Your task to perform on an android device: empty trash in google photos Image 0: 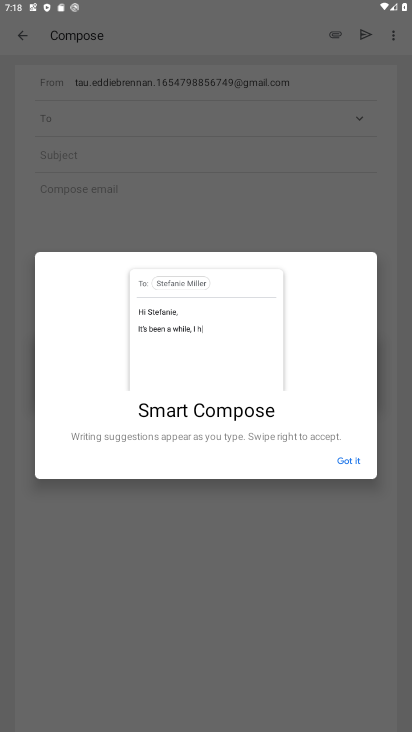
Step 0: press home button
Your task to perform on an android device: empty trash in google photos Image 1: 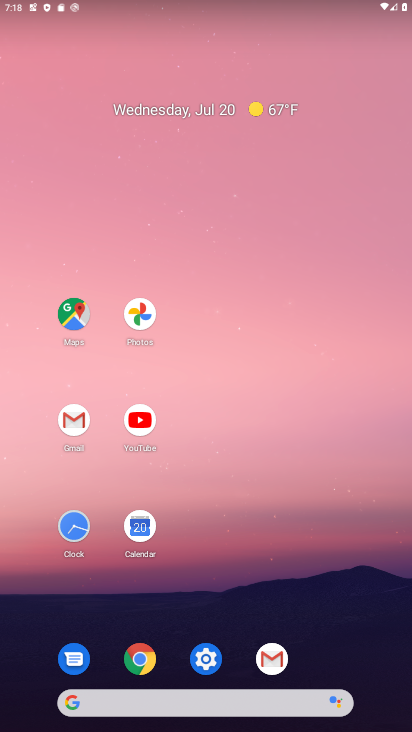
Step 1: click (137, 316)
Your task to perform on an android device: empty trash in google photos Image 2: 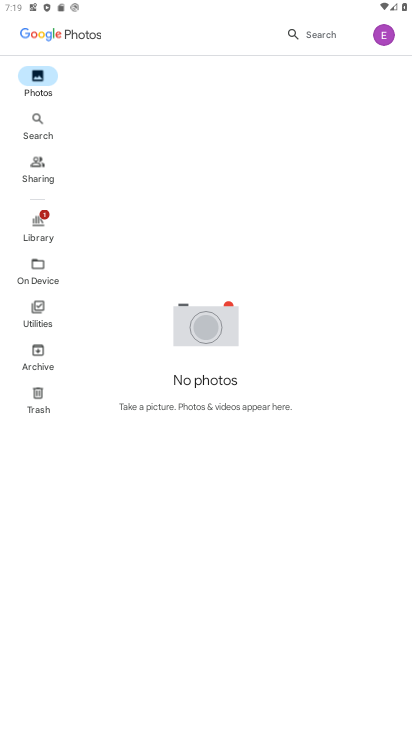
Step 2: click (36, 396)
Your task to perform on an android device: empty trash in google photos Image 3: 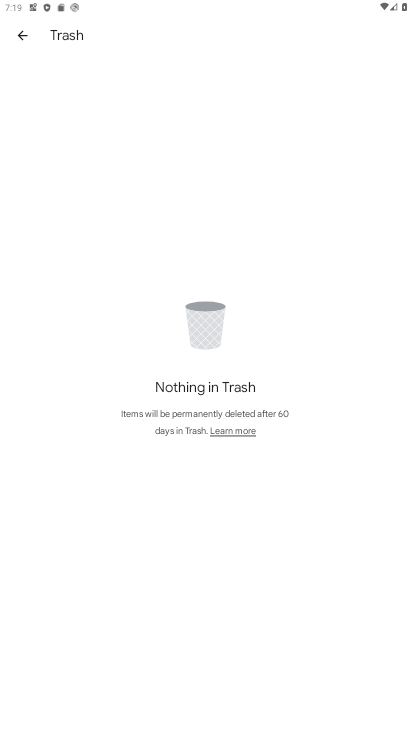
Step 3: task complete